Your task to perform on an android device: toggle improve location accuracy Image 0: 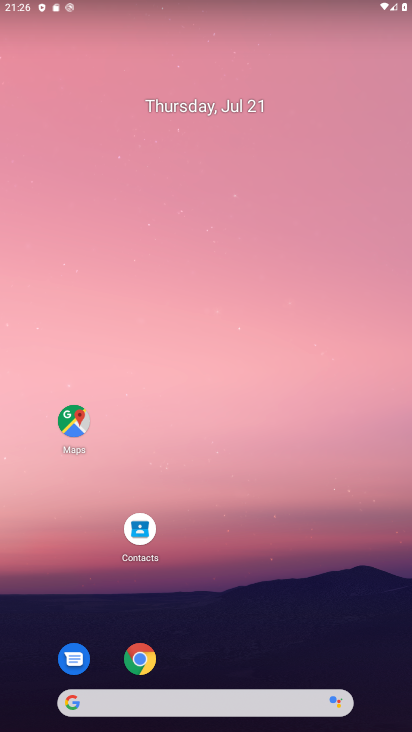
Step 0: drag from (275, 709) to (241, 132)
Your task to perform on an android device: toggle improve location accuracy Image 1: 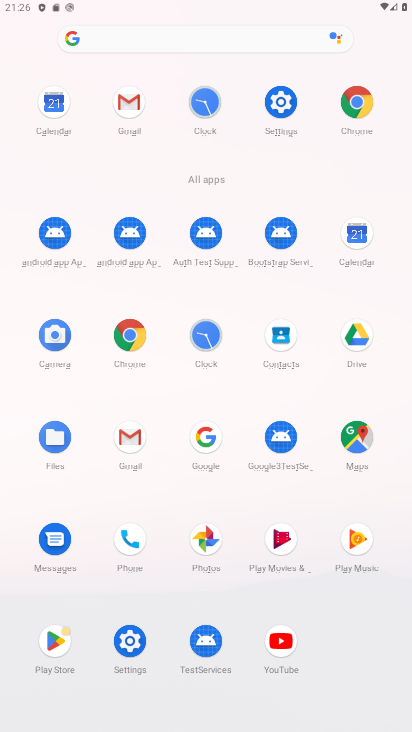
Step 1: click (285, 96)
Your task to perform on an android device: toggle improve location accuracy Image 2: 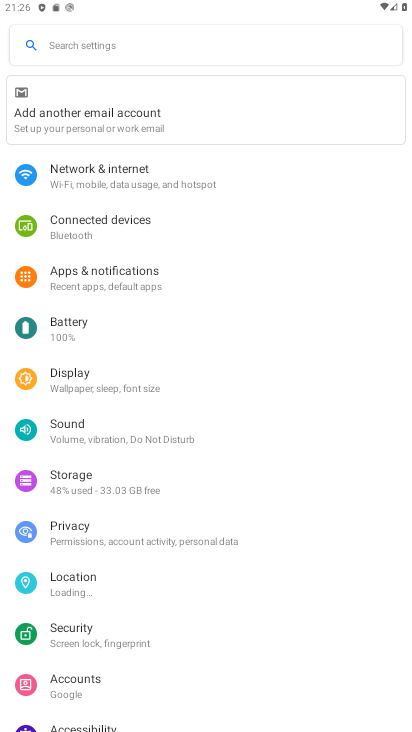
Step 2: click (112, 577)
Your task to perform on an android device: toggle improve location accuracy Image 3: 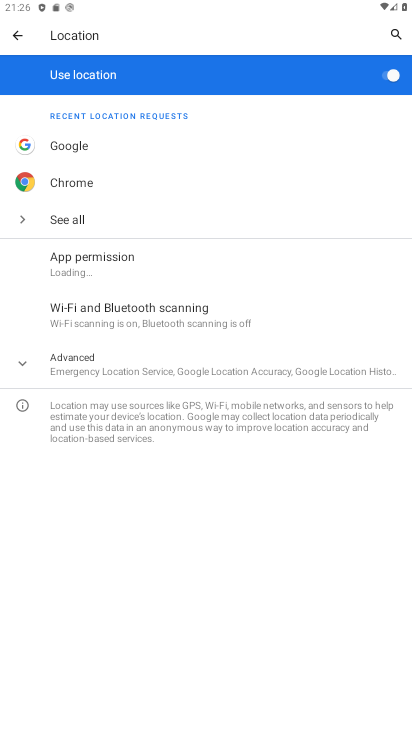
Step 3: click (204, 359)
Your task to perform on an android device: toggle improve location accuracy Image 4: 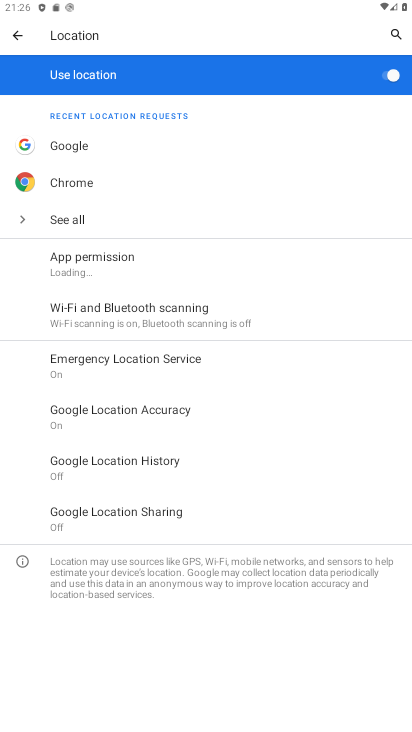
Step 4: click (165, 407)
Your task to perform on an android device: toggle improve location accuracy Image 5: 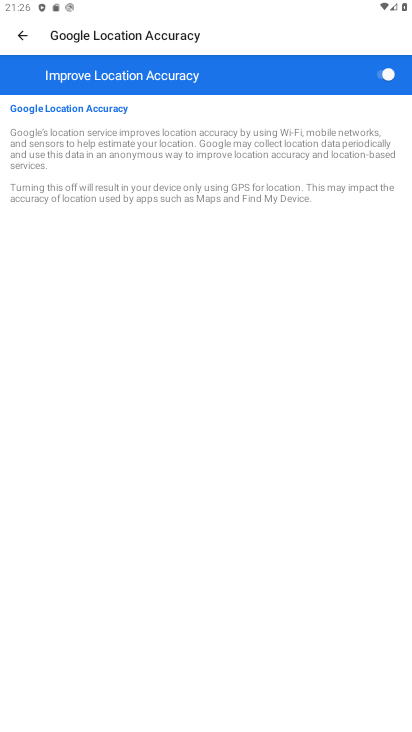
Step 5: click (397, 75)
Your task to perform on an android device: toggle improve location accuracy Image 6: 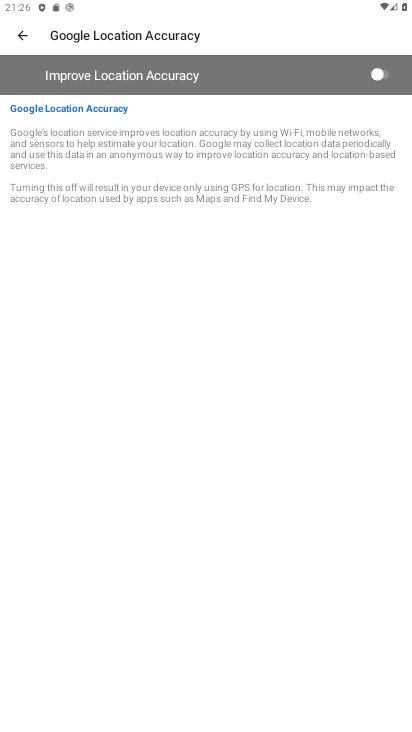
Step 6: task complete